Your task to perform on an android device: turn on the 24-hour format for clock Image 0: 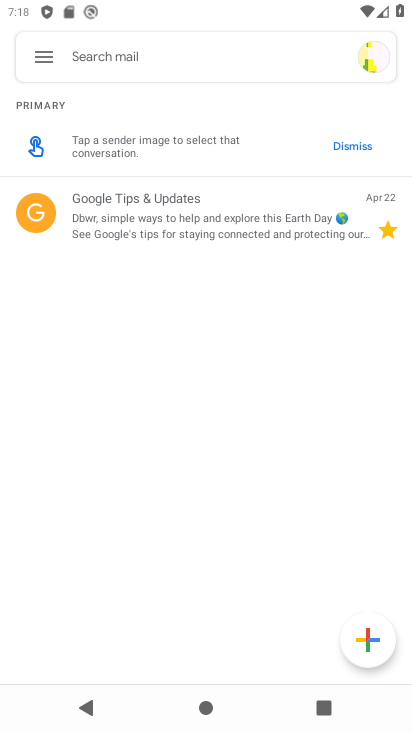
Step 0: press home button
Your task to perform on an android device: turn on the 24-hour format for clock Image 1: 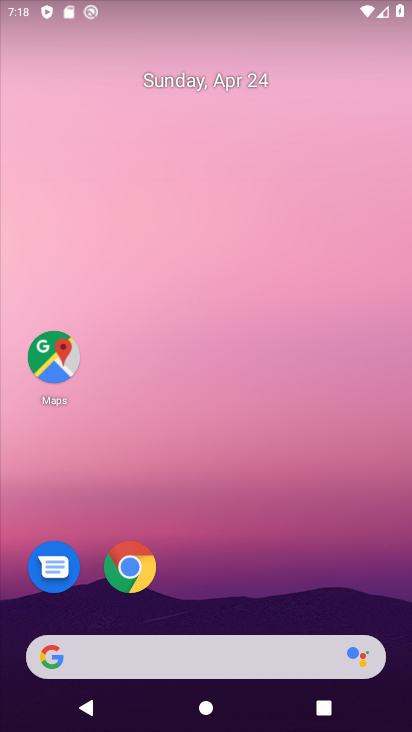
Step 1: drag from (310, 684) to (267, 175)
Your task to perform on an android device: turn on the 24-hour format for clock Image 2: 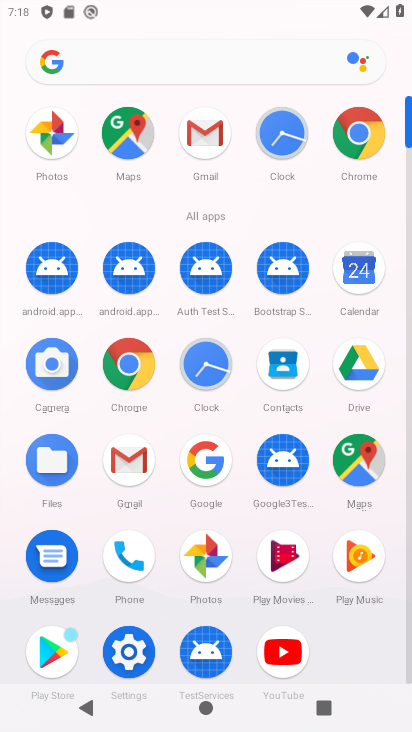
Step 2: click (205, 352)
Your task to perform on an android device: turn on the 24-hour format for clock Image 3: 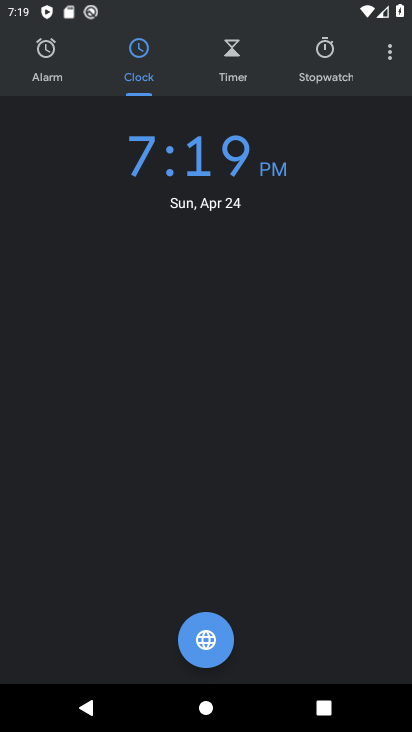
Step 3: click (382, 47)
Your task to perform on an android device: turn on the 24-hour format for clock Image 4: 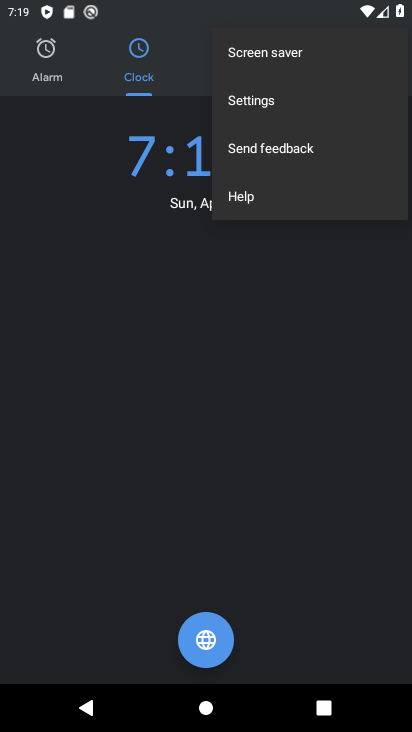
Step 4: click (298, 110)
Your task to perform on an android device: turn on the 24-hour format for clock Image 5: 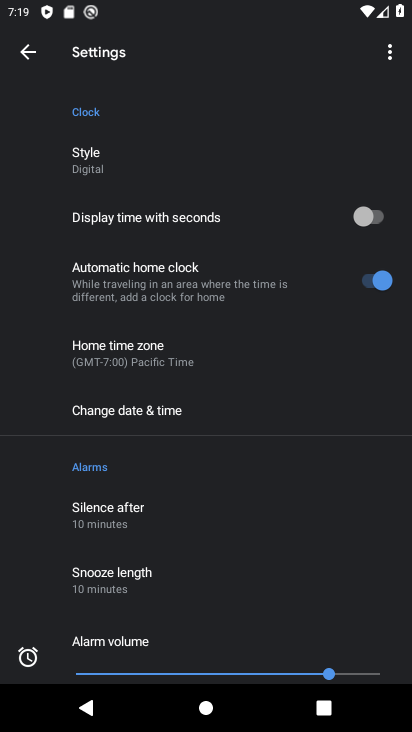
Step 5: click (191, 168)
Your task to perform on an android device: turn on the 24-hour format for clock Image 6: 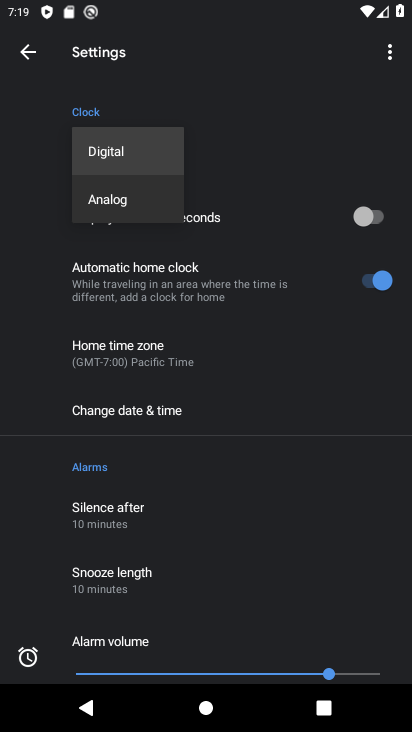
Step 6: click (131, 396)
Your task to perform on an android device: turn on the 24-hour format for clock Image 7: 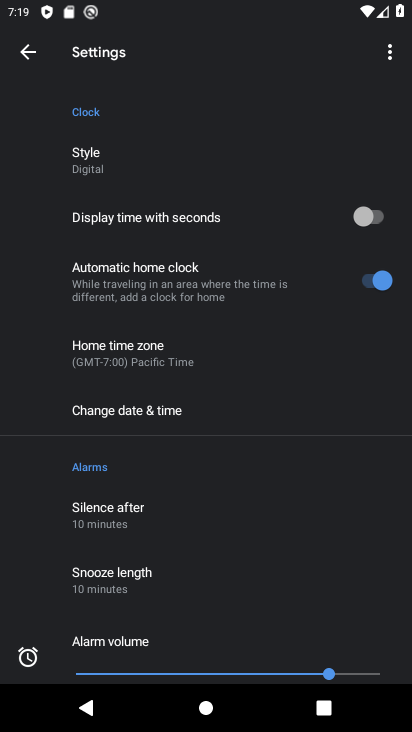
Step 7: drag from (173, 599) to (284, 400)
Your task to perform on an android device: turn on the 24-hour format for clock Image 8: 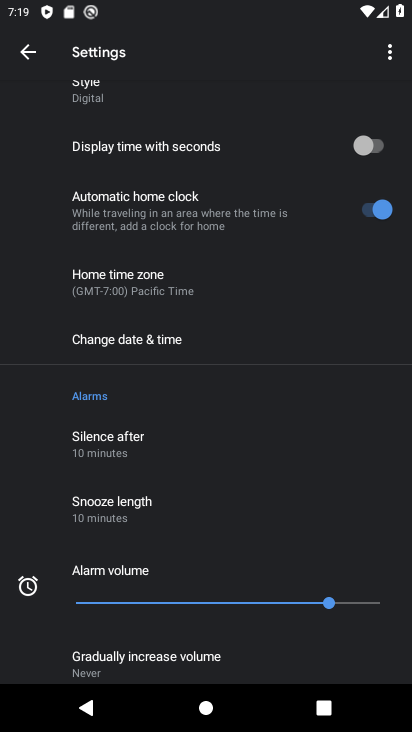
Step 8: click (194, 355)
Your task to perform on an android device: turn on the 24-hour format for clock Image 9: 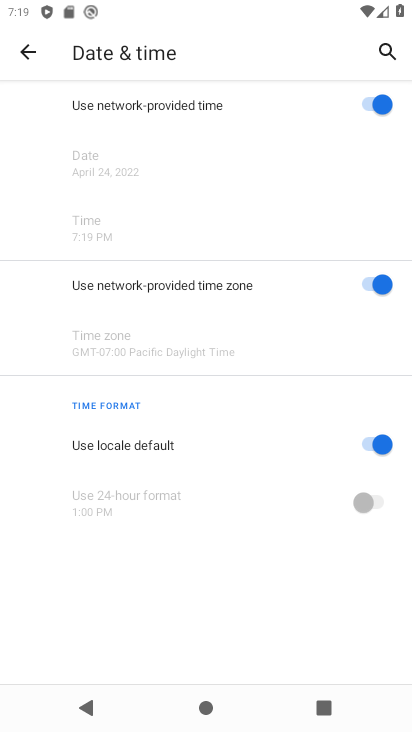
Step 9: click (246, 453)
Your task to perform on an android device: turn on the 24-hour format for clock Image 10: 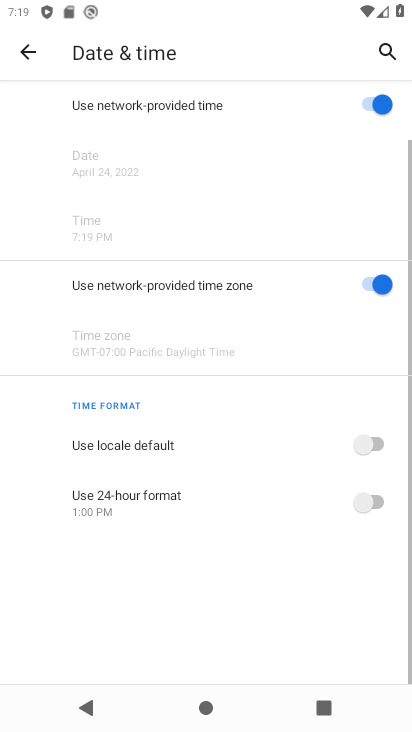
Step 10: click (355, 514)
Your task to perform on an android device: turn on the 24-hour format for clock Image 11: 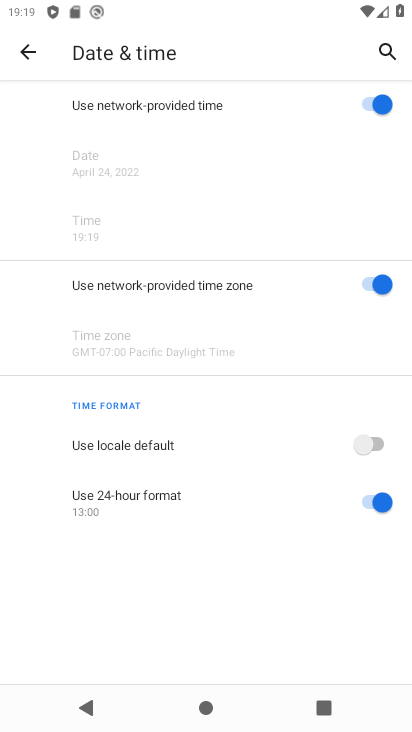
Step 11: task complete